Your task to perform on an android device: Open Android settings Image 0: 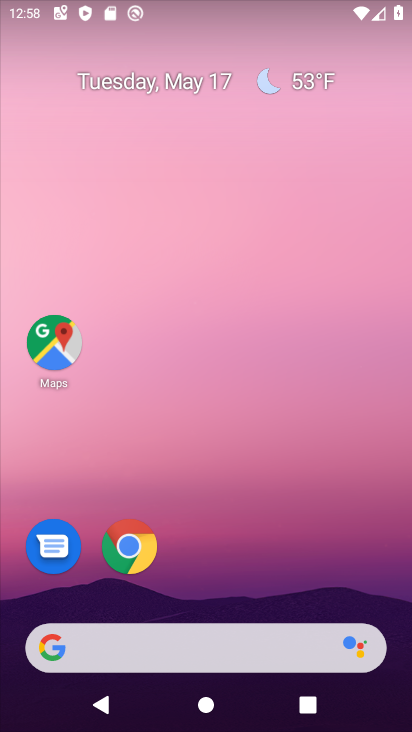
Step 0: drag from (262, 575) to (213, 152)
Your task to perform on an android device: Open Android settings Image 1: 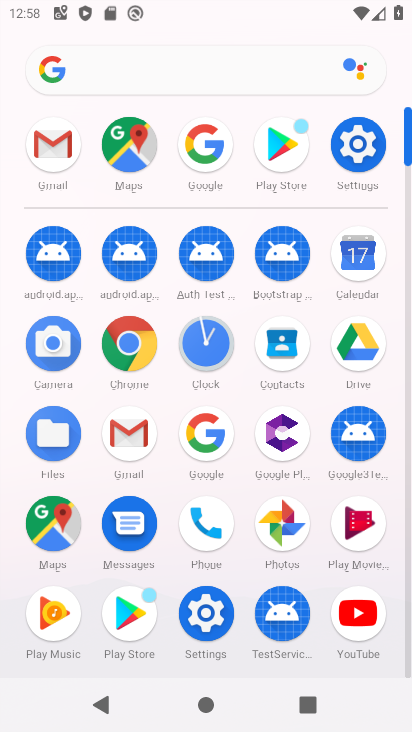
Step 1: click (347, 144)
Your task to perform on an android device: Open Android settings Image 2: 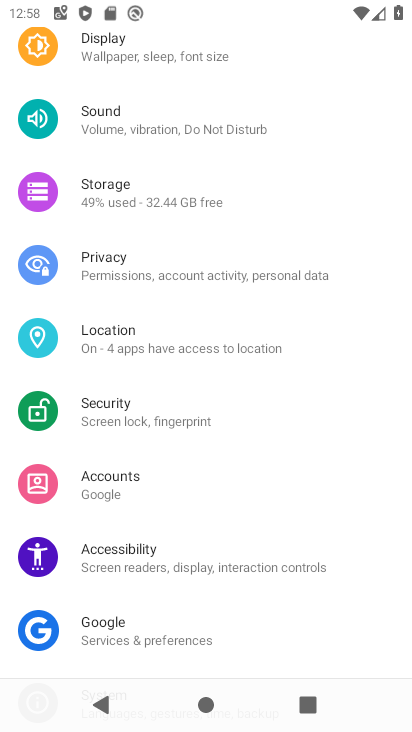
Step 2: task complete